Your task to perform on an android device: toggle improve location accuracy Image 0: 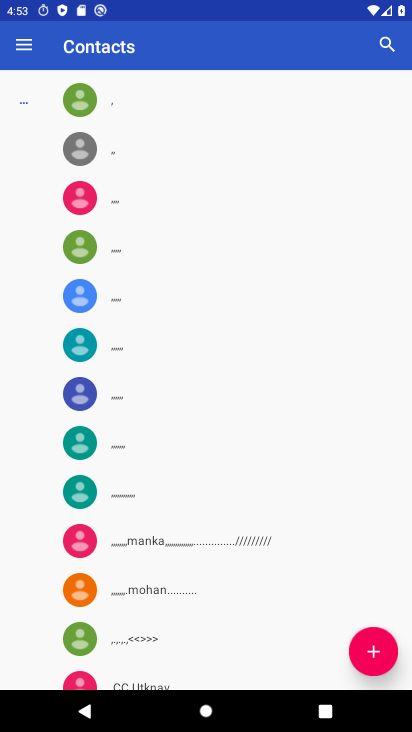
Step 0: press home button
Your task to perform on an android device: toggle improve location accuracy Image 1: 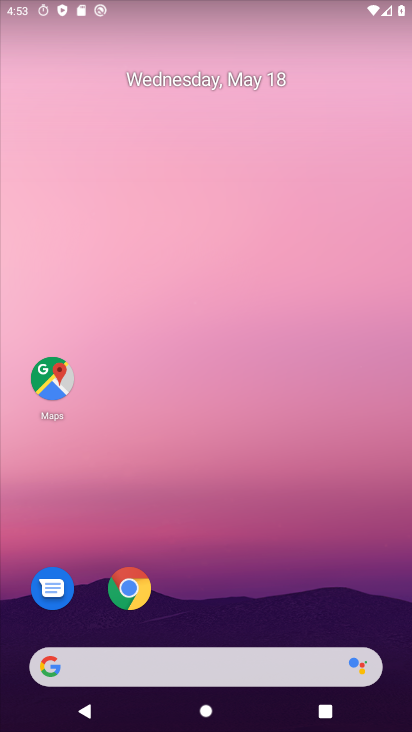
Step 1: drag from (259, 590) to (276, 91)
Your task to perform on an android device: toggle improve location accuracy Image 2: 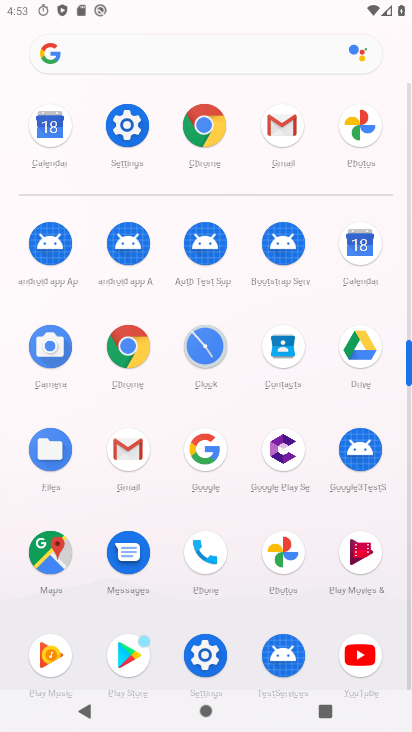
Step 2: click (130, 123)
Your task to perform on an android device: toggle improve location accuracy Image 3: 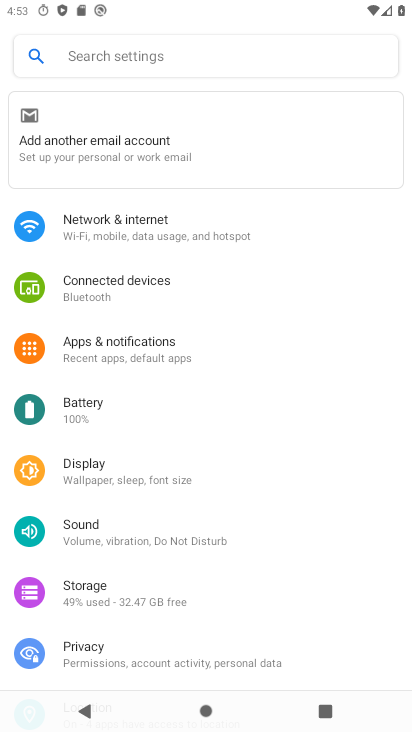
Step 3: drag from (192, 650) to (277, 132)
Your task to perform on an android device: toggle improve location accuracy Image 4: 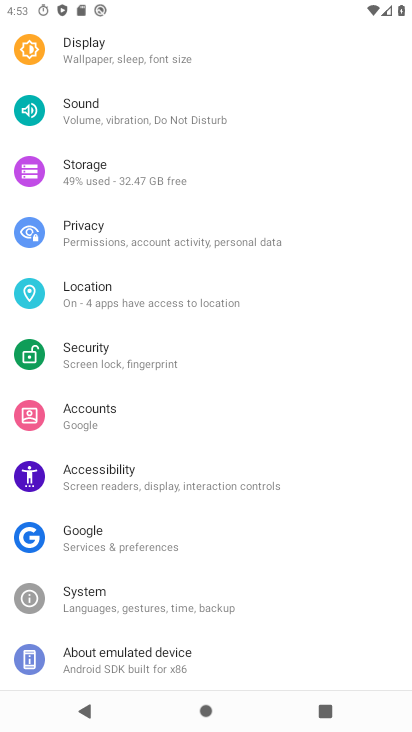
Step 4: click (98, 284)
Your task to perform on an android device: toggle improve location accuracy Image 5: 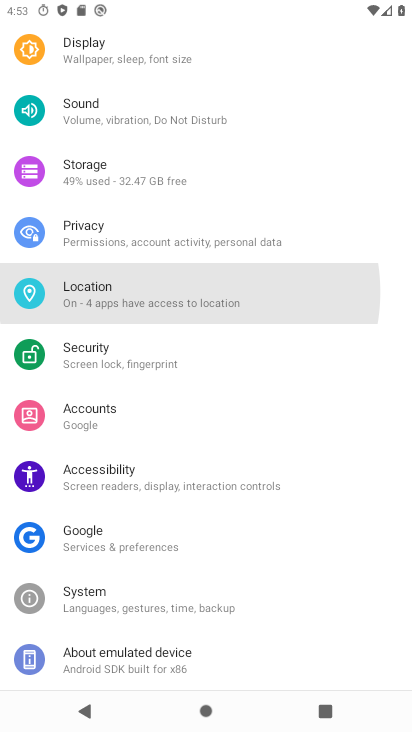
Step 5: click (93, 295)
Your task to perform on an android device: toggle improve location accuracy Image 6: 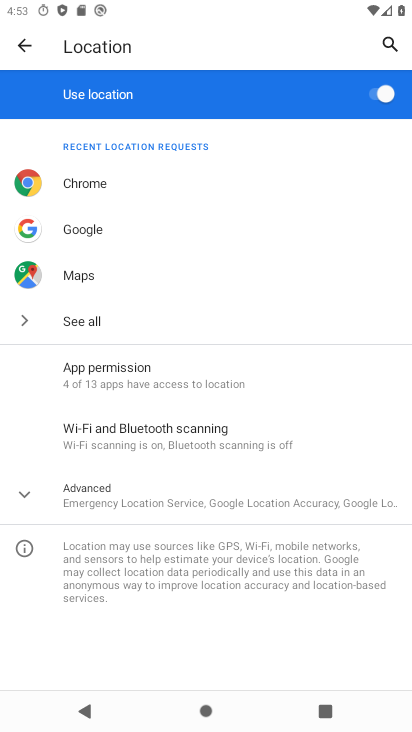
Step 6: click (187, 505)
Your task to perform on an android device: toggle improve location accuracy Image 7: 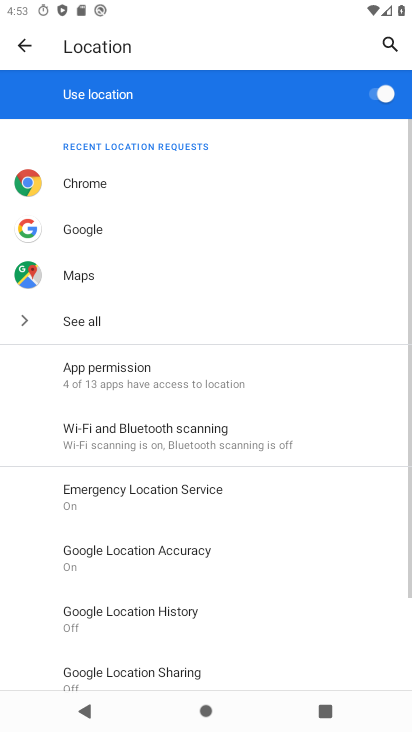
Step 7: drag from (292, 664) to (310, 370)
Your task to perform on an android device: toggle improve location accuracy Image 8: 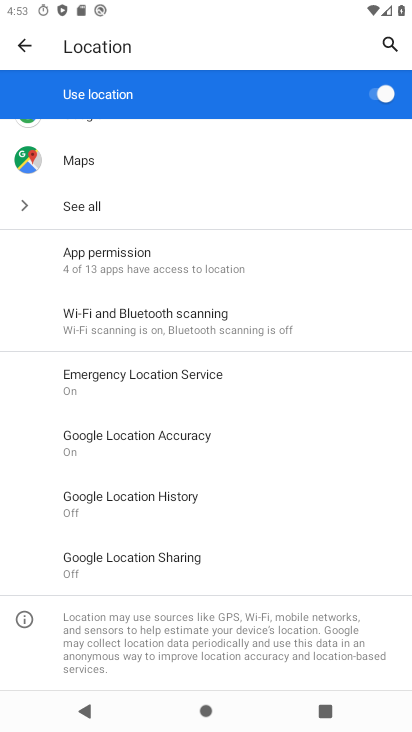
Step 8: click (134, 435)
Your task to perform on an android device: toggle improve location accuracy Image 9: 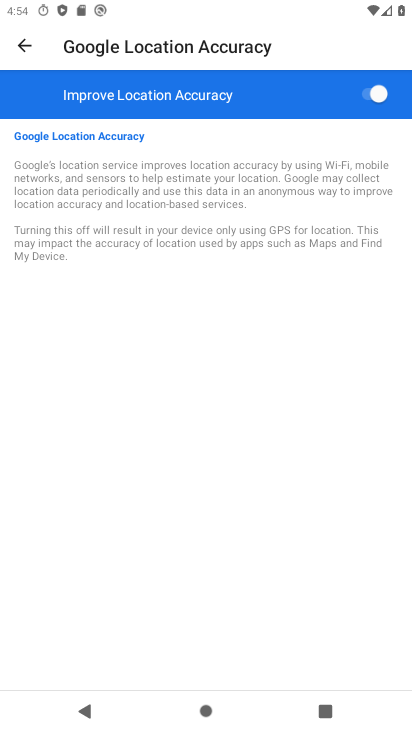
Step 9: click (368, 81)
Your task to perform on an android device: toggle improve location accuracy Image 10: 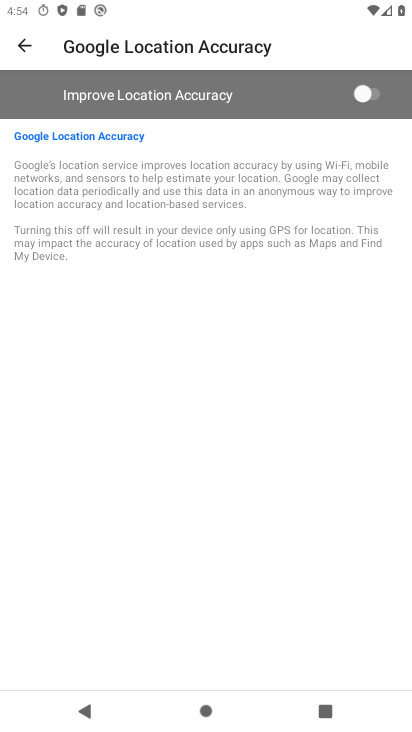
Step 10: task complete